Your task to perform on an android device: Empty the shopping cart on target.com. Search for "rayovac triple a" on target.com, select the first entry, and add it to the cart. Image 0: 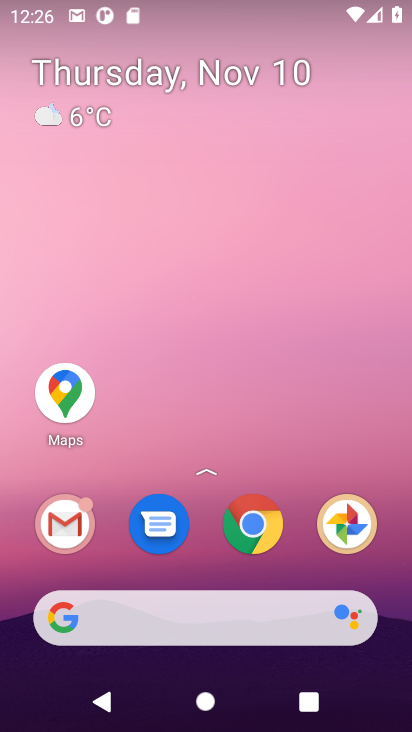
Step 0: click (256, 530)
Your task to perform on an android device: Empty the shopping cart on target.com. Search for "rayovac triple a" on target.com, select the first entry, and add it to the cart. Image 1: 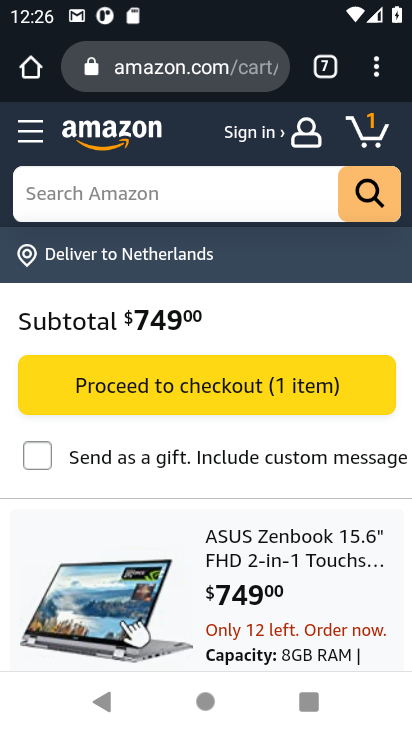
Step 1: click (317, 66)
Your task to perform on an android device: Empty the shopping cart on target.com. Search for "rayovac triple a" on target.com, select the first entry, and add it to the cart. Image 2: 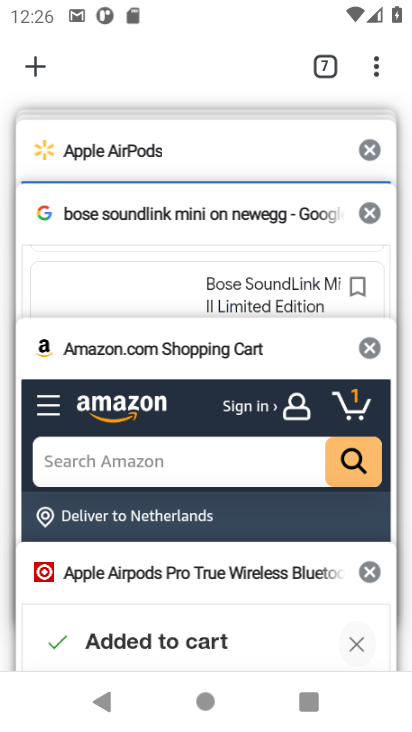
Step 2: click (135, 595)
Your task to perform on an android device: Empty the shopping cart on target.com. Search for "rayovac triple a" on target.com, select the first entry, and add it to the cart. Image 3: 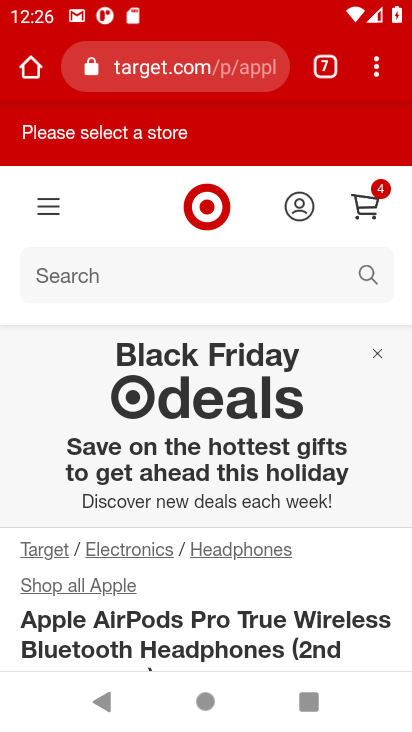
Step 3: click (87, 284)
Your task to perform on an android device: Empty the shopping cart on target.com. Search for "rayovac triple a" on target.com, select the first entry, and add it to the cart. Image 4: 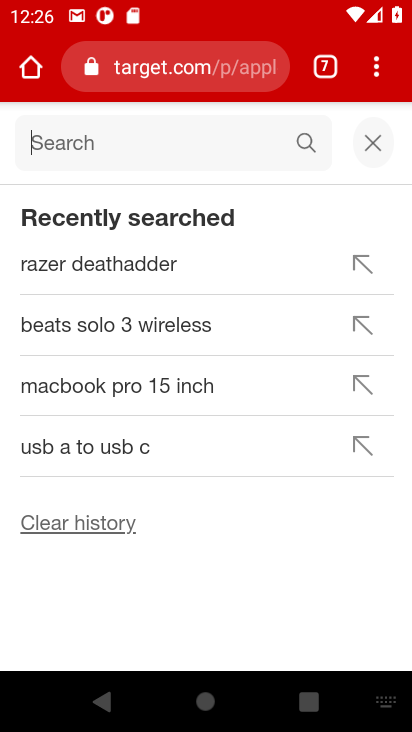
Step 4: type "rayovac triple a"
Your task to perform on an android device: Empty the shopping cart on target.com. Search for "rayovac triple a" on target.com, select the first entry, and add it to the cart. Image 5: 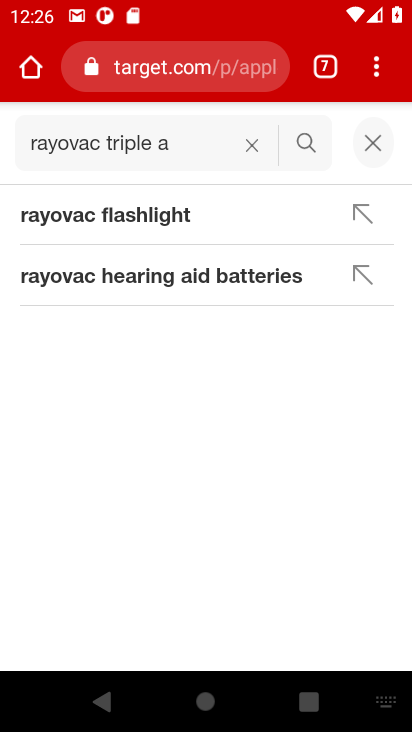
Step 5: click (304, 137)
Your task to perform on an android device: Empty the shopping cart on target.com. Search for "rayovac triple a" on target.com, select the first entry, and add it to the cart. Image 6: 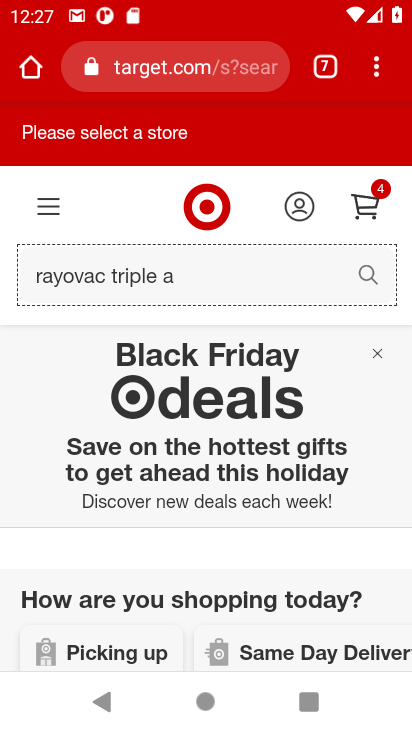
Step 6: drag from (217, 595) to (338, 148)
Your task to perform on an android device: Empty the shopping cart on target.com. Search for "rayovac triple a" on target.com, select the first entry, and add it to the cart. Image 7: 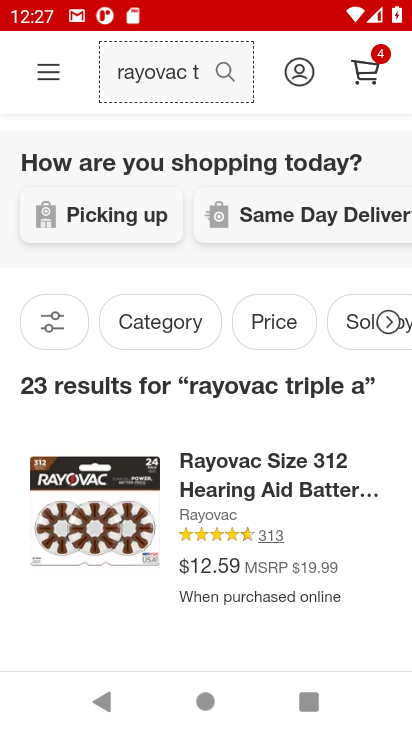
Step 7: drag from (295, 384) to (346, 226)
Your task to perform on an android device: Empty the shopping cart on target.com. Search for "rayovac triple a" on target.com, select the first entry, and add it to the cart. Image 8: 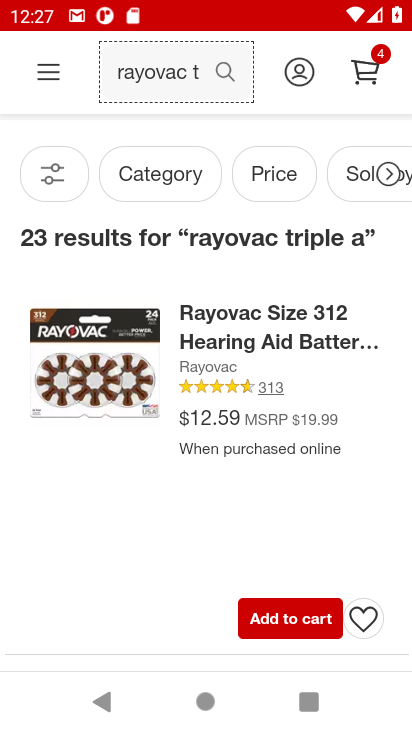
Step 8: drag from (297, 501) to (343, 296)
Your task to perform on an android device: Empty the shopping cart on target.com. Search for "rayovac triple a" on target.com, select the first entry, and add it to the cart. Image 9: 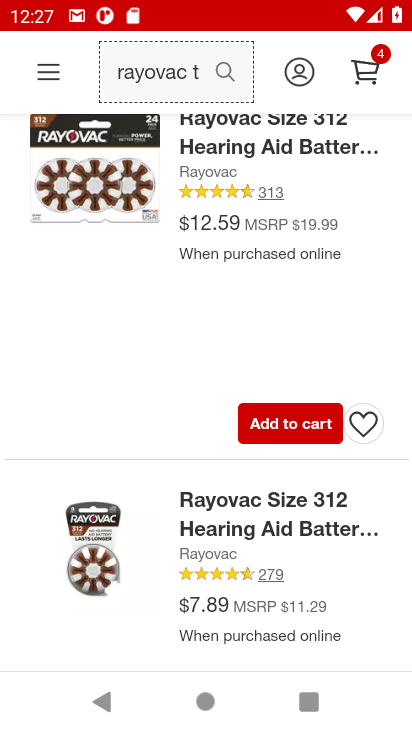
Step 9: click (310, 418)
Your task to perform on an android device: Empty the shopping cart on target.com. Search for "rayovac triple a" on target.com, select the first entry, and add it to the cart. Image 10: 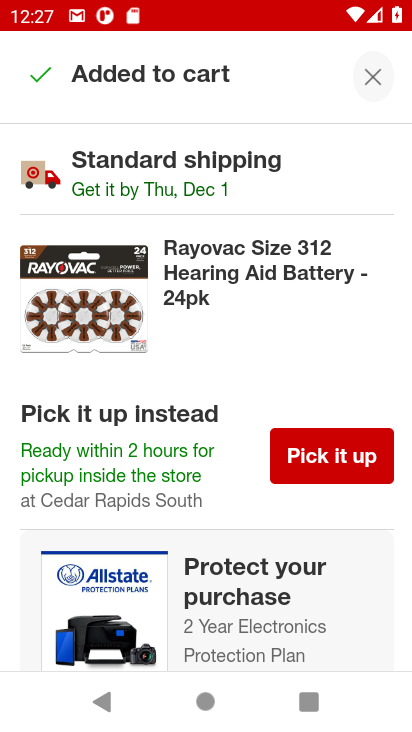
Step 10: task complete